Your task to perform on an android device: turn off javascript in the chrome app Image 0: 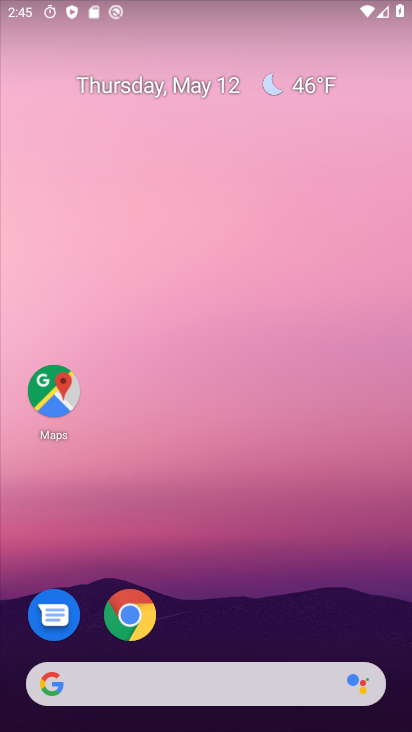
Step 0: click (126, 611)
Your task to perform on an android device: turn off javascript in the chrome app Image 1: 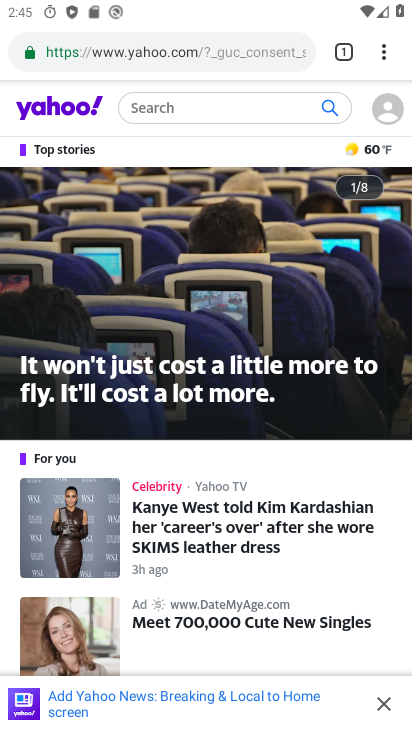
Step 1: click (376, 51)
Your task to perform on an android device: turn off javascript in the chrome app Image 2: 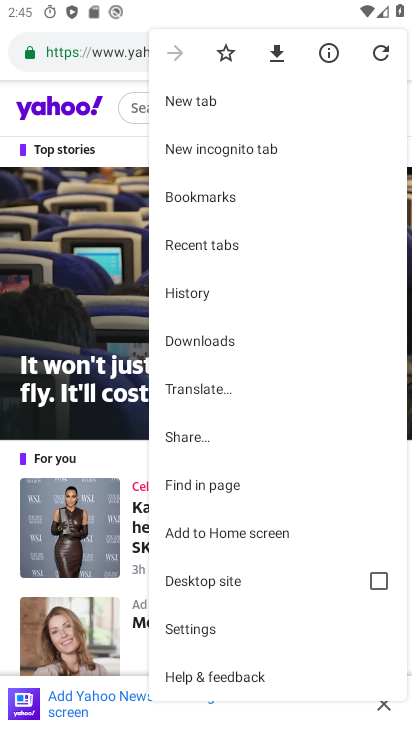
Step 2: click (190, 630)
Your task to perform on an android device: turn off javascript in the chrome app Image 3: 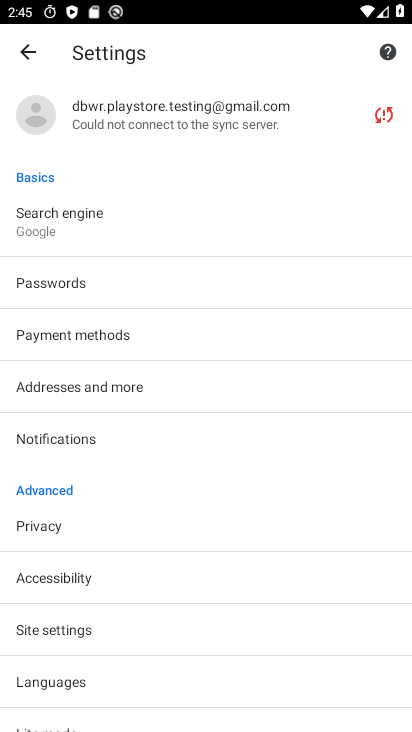
Step 3: click (88, 637)
Your task to perform on an android device: turn off javascript in the chrome app Image 4: 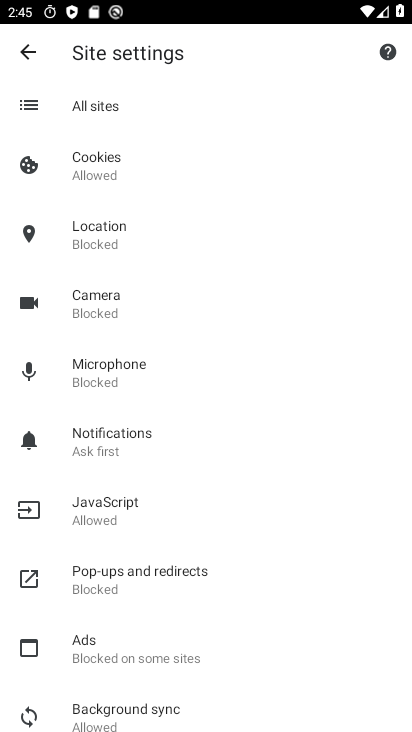
Step 4: click (162, 516)
Your task to perform on an android device: turn off javascript in the chrome app Image 5: 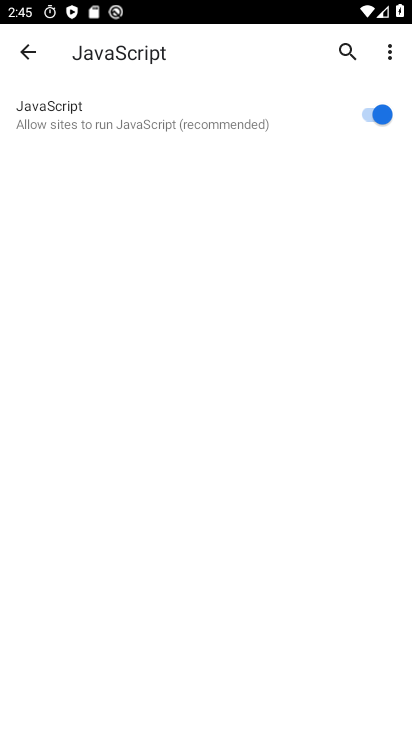
Step 5: click (382, 108)
Your task to perform on an android device: turn off javascript in the chrome app Image 6: 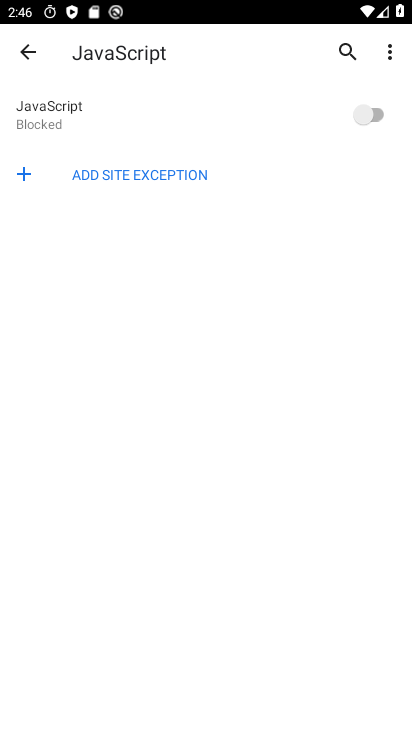
Step 6: task complete